Your task to perform on an android device: Do I have any events this weekend? Image 0: 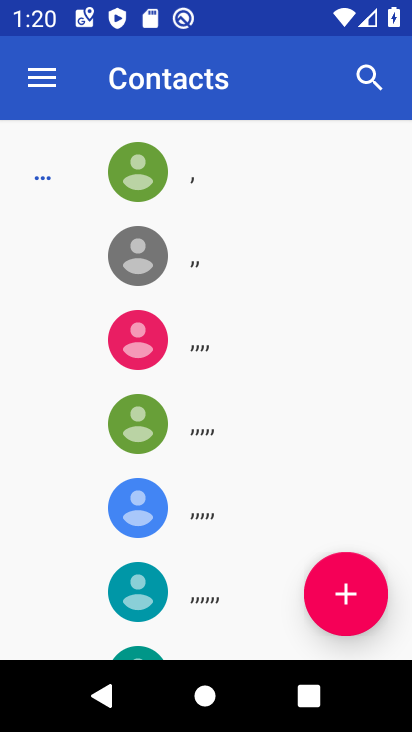
Step 0: press home button
Your task to perform on an android device: Do I have any events this weekend? Image 1: 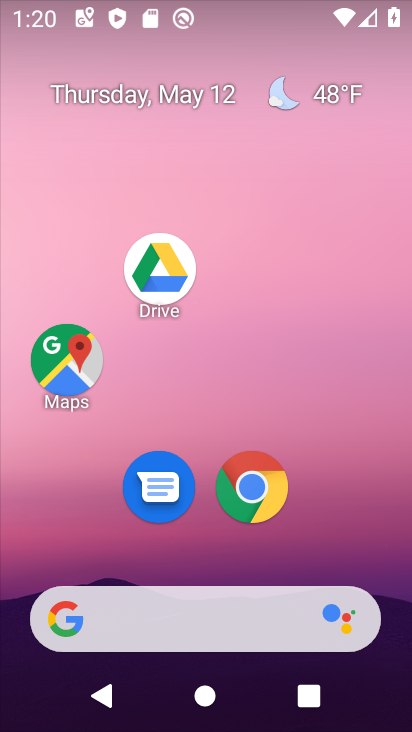
Step 1: drag from (223, 555) to (151, 4)
Your task to perform on an android device: Do I have any events this weekend? Image 2: 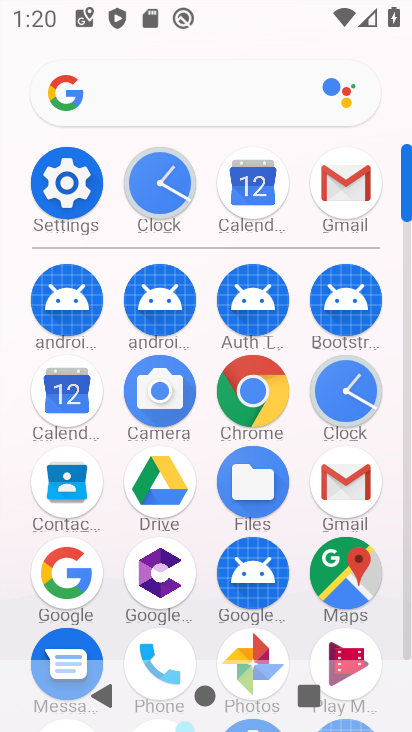
Step 2: click (45, 413)
Your task to perform on an android device: Do I have any events this weekend? Image 3: 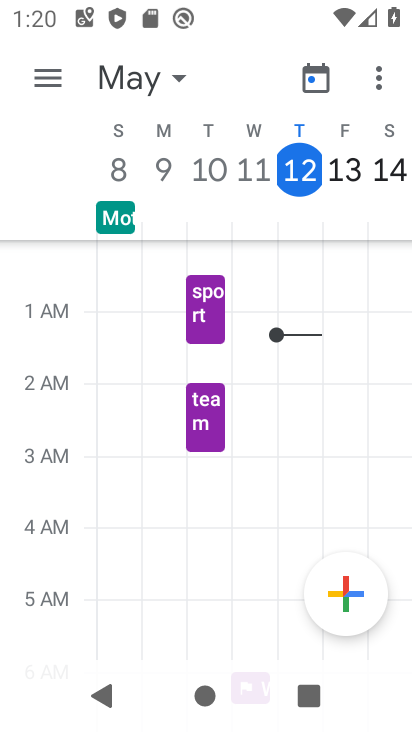
Step 3: task complete